Your task to perform on an android device: Go to Yahoo.com Image 0: 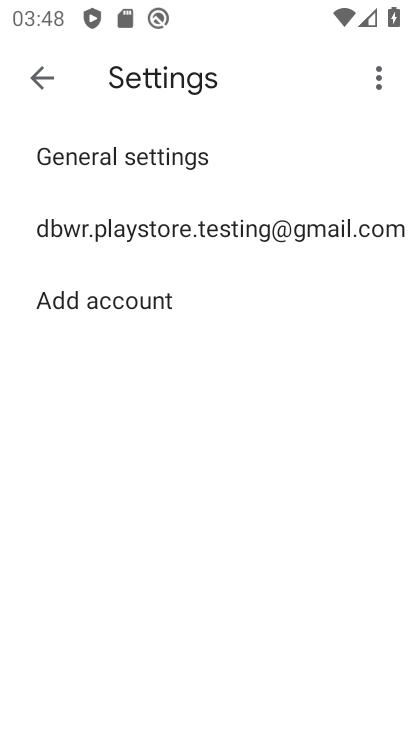
Step 0: press home button
Your task to perform on an android device: Go to Yahoo.com Image 1: 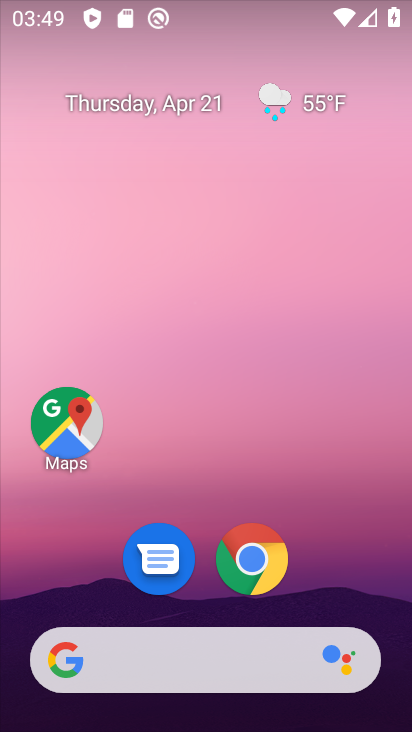
Step 1: drag from (262, 409) to (143, 11)
Your task to perform on an android device: Go to Yahoo.com Image 2: 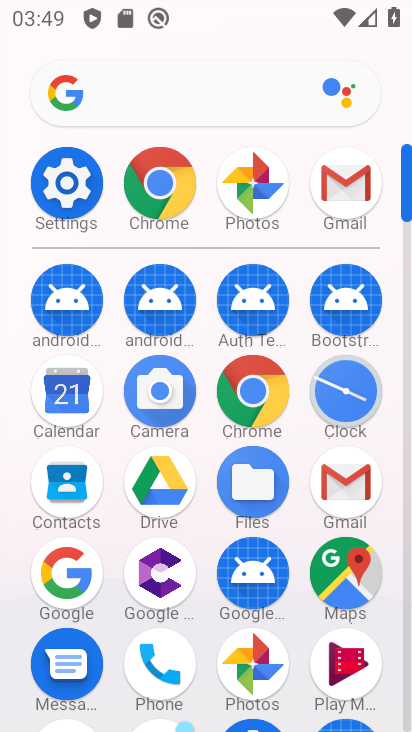
Step 2: click (148, 189)
Your task to perform on an android device: Go to Yahoo.com Image 3: 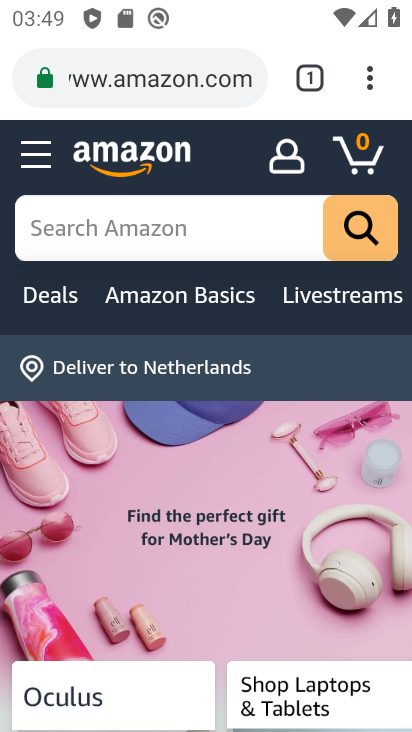
Step 3: click (144, 80)
Your task to perform on an android device: Go to Yahoo.com Image 4: 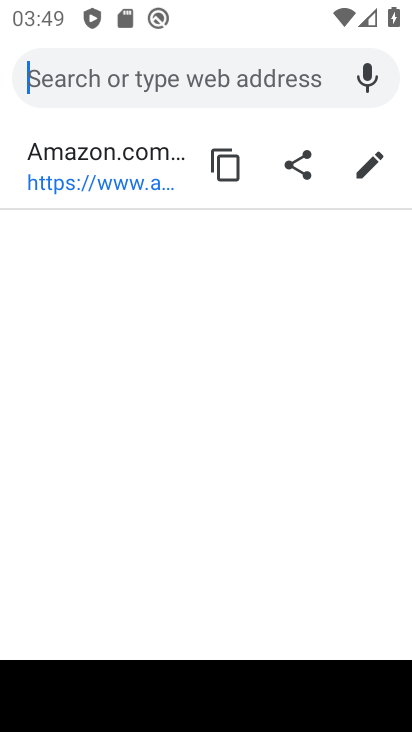
Step 4: type "yahoo.com"
Your task to perform on an android device: Go to Yahoo.com Image 5: 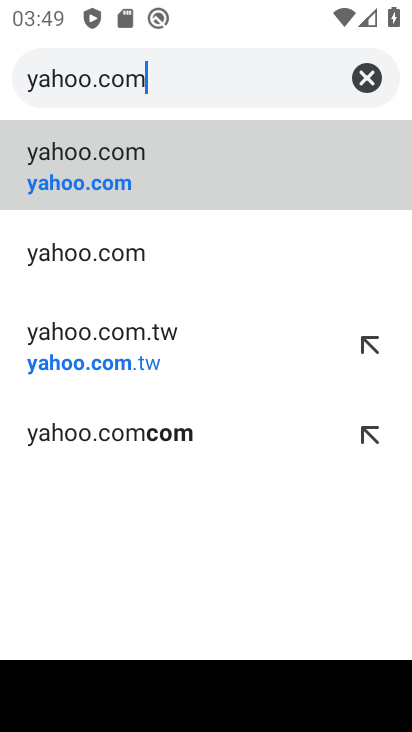
Step 5: click (82, 163)
Your task to perform on an android device: Go to Yahoo.com Image 6: 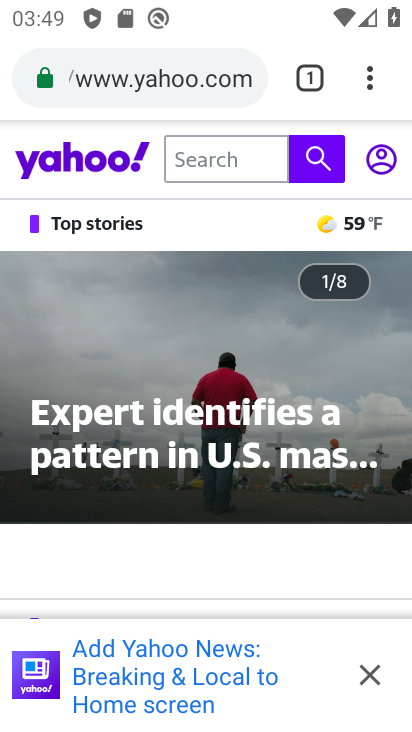
Step 6: task complete